Your task to perform on an android device: Search for pizza restaurants on Maps Image 0: 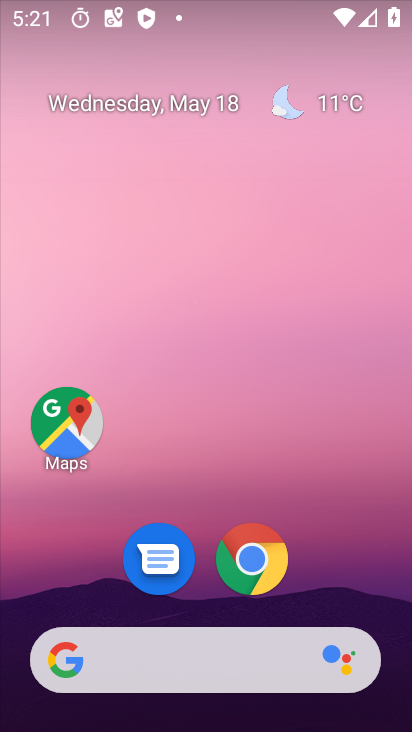
Step 0: click (85, 416)
Your task to perform on an android device: Search for pizza restaurants on Maps Image 1: 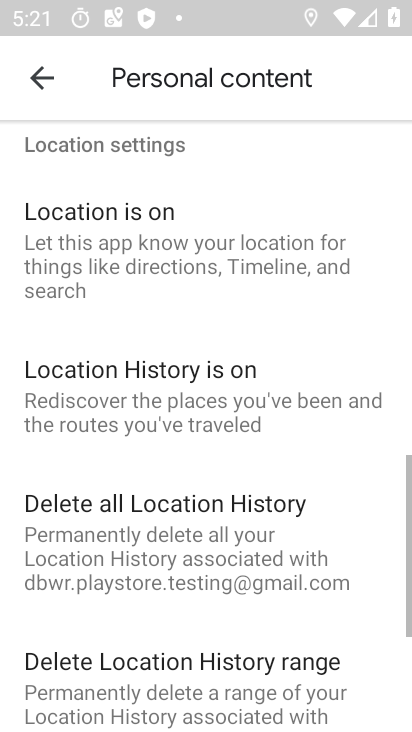
Step 1: click (36, 59)
Your task to perform on an android device: Search for pizza restaurants on Maps Image 2: 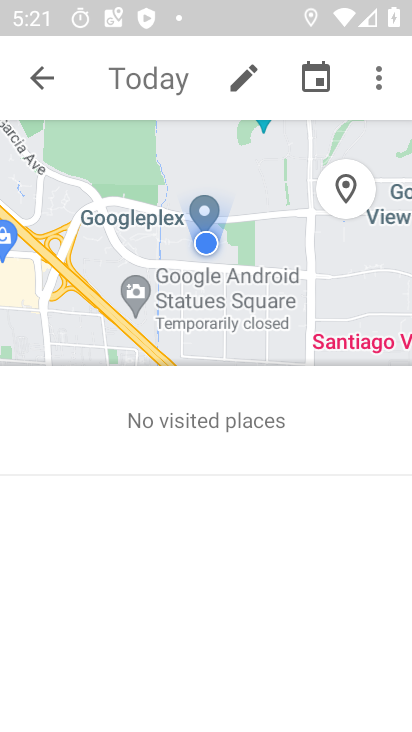
Step 2: click (45, 74)
Your task to perform on an android device: Search for pizza restaurants on Maps Image 3: 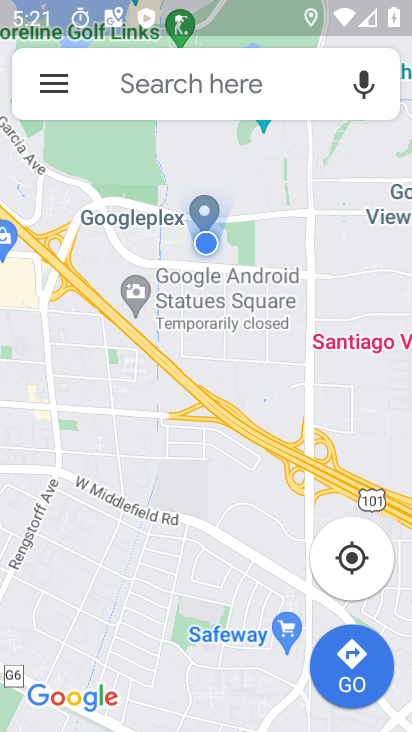
Step 3: click (182, 89)
Your task to perform on an android device: Search for pizza restaurants on Maps Image 4: 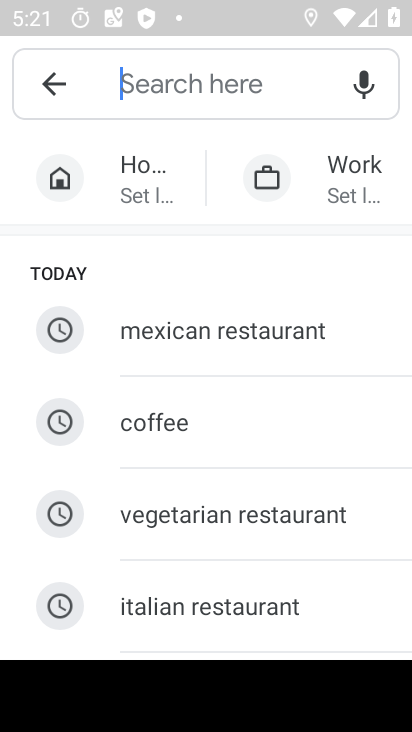
Step 4: drag from (163, 578) to (237, 167)
Your task to perform on an android device: Search for pizza restaurants on Maps Image 5: 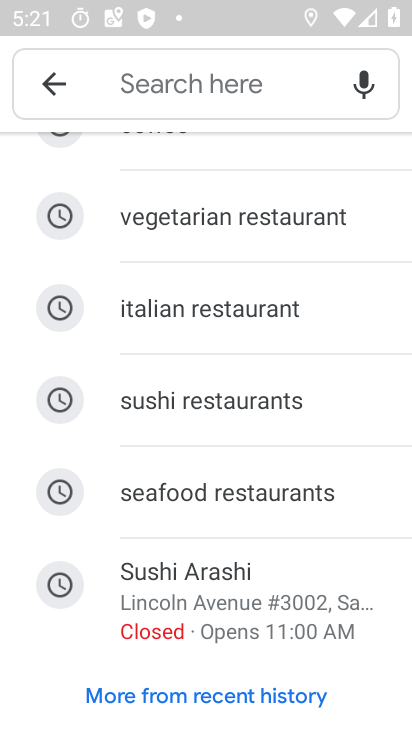
Step 5: click (165, 90)
Your task to perform on an android device: Search for pizza restaurants on Maps Image 6: 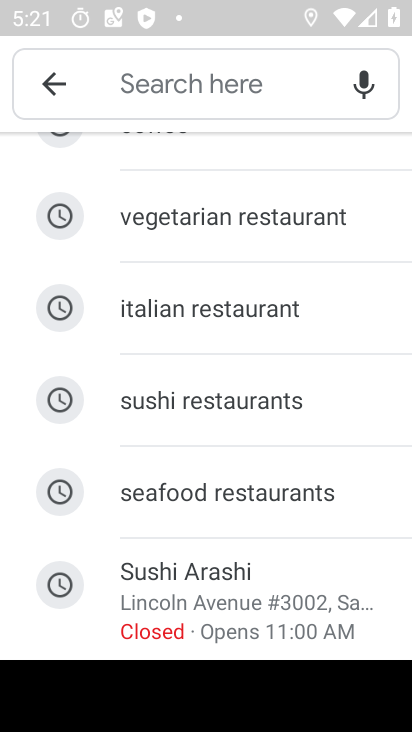
Step 6: type "pizza resturants"
Your task to perform on an android device: Search for pizza restaurants on Maps Image 7: 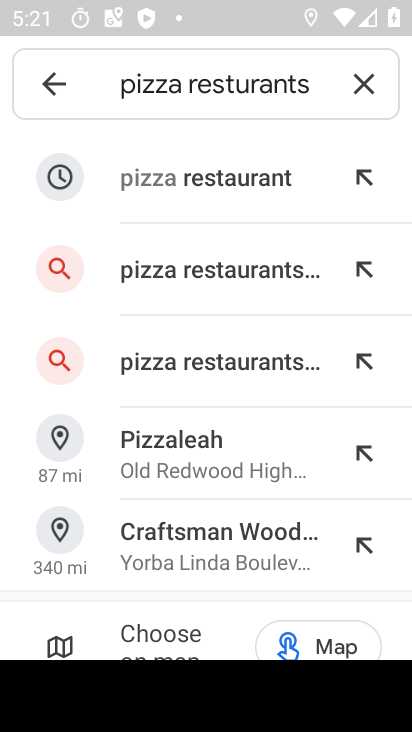
Step 7: click (214, 180)
Your task to perform on an android device: Search for pizza restaurants on Maps Image 8: 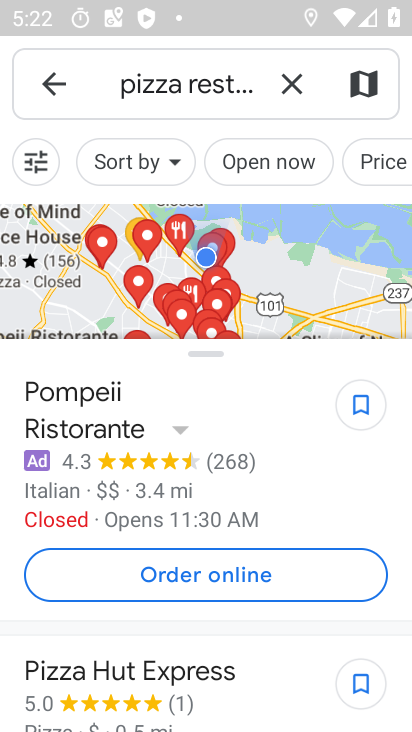
Step 8: task complete